Your task to perform on an android device: turn off improve location accuracy Image 0: 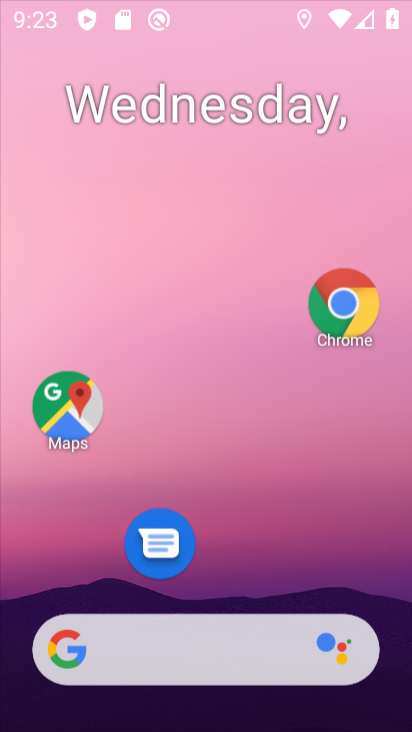
Step 0: click (324, 213)
Your task to perform on an android device: turn off improve location accuracy Image 1: 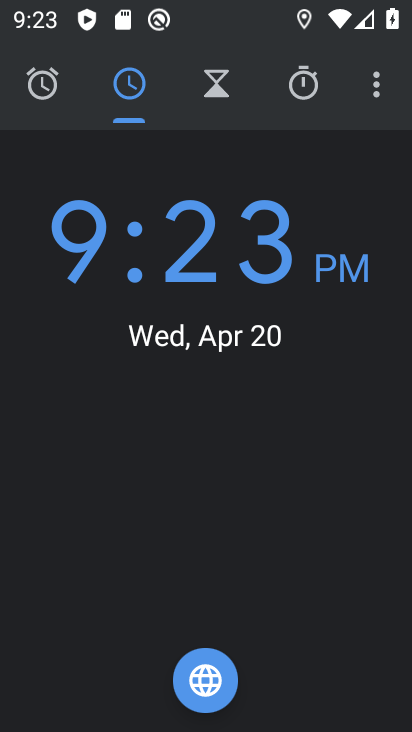
Step 1: press home button
Your task to perform on an android device: turn off improve location accuracy Image 2: 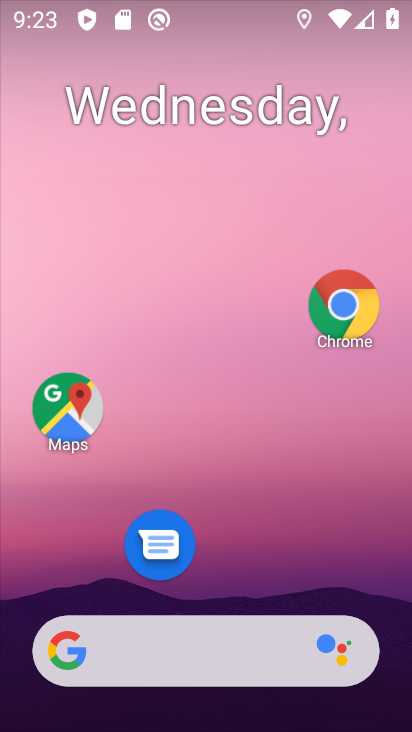
Step 2: drag from (257, 577) to (323, 127)
Your task to perform on an android device: turn off improve location accuracy Image 3: 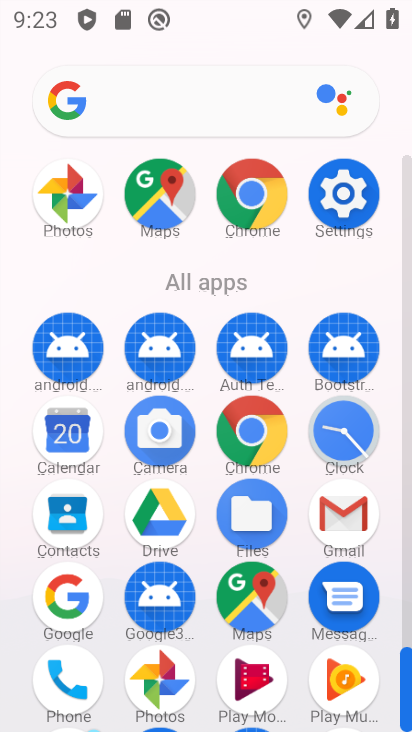
Step 3: click (350, 221)
Your task to perform on an android device: turn off improve location accuracy Image 4: 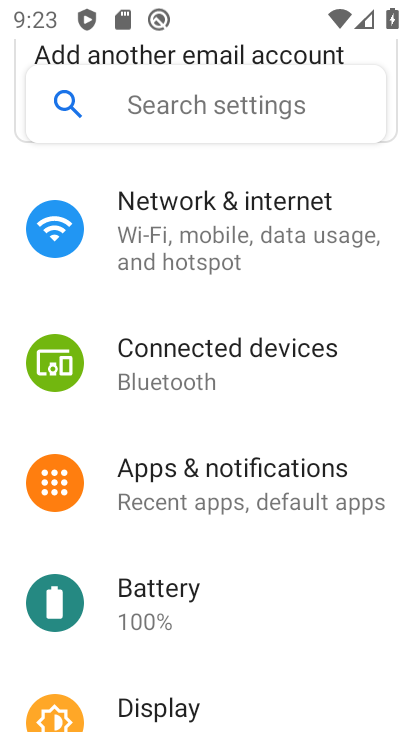
Step 4: drag from (299, 376) to (321, 250)
Your task to perform on an android device: turn off improve location accuracy Image 5: 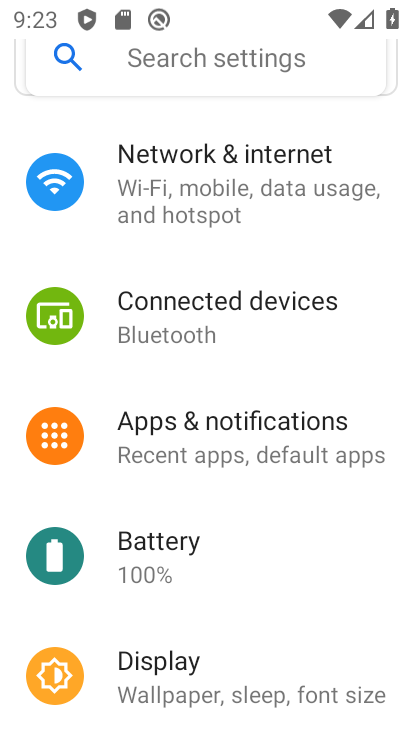
Step 5: drag from (258, 598) to (258, 247)
Your task to perform on an android device: turn off improve location accuracy Image 6: 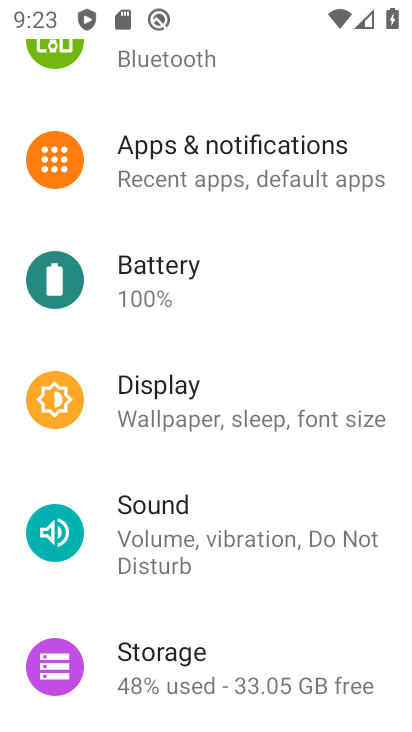
Step 6: drag from (222, 563) to (223, 334)
Your task to perform on an android device: turn off improve location accuracy Image 7: 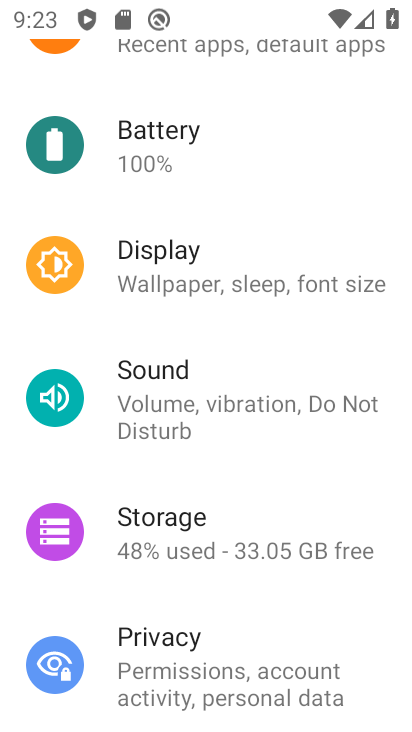
Step 7: drag from (316, 560) to (361, 348)
Your task to perform on an android device: turn off improve location accuracy Image 8: 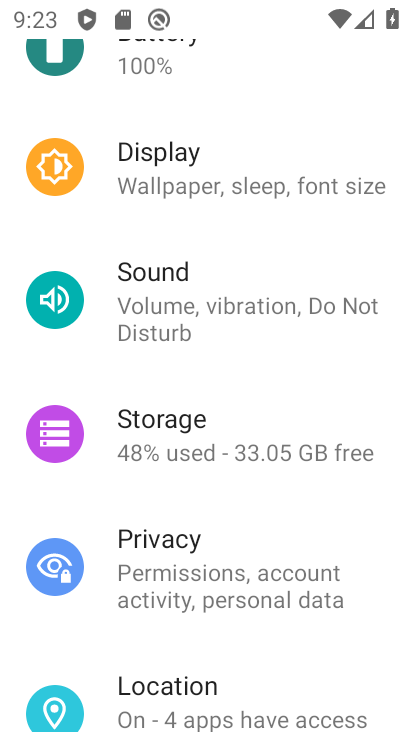
Step 8: drag from (208, 598) to (261, 186)
Your task to perform on an android device: turn off improve location accuracy Image 9: 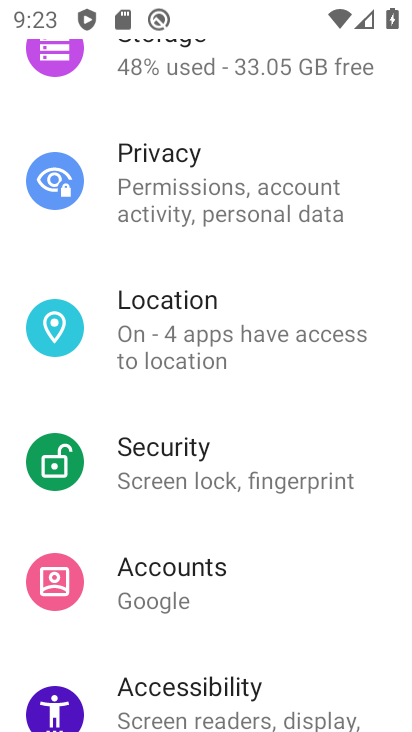
Step 9: click (240, 349)
Your task to perform on an android device: turn off improve location accuracy Image 10: 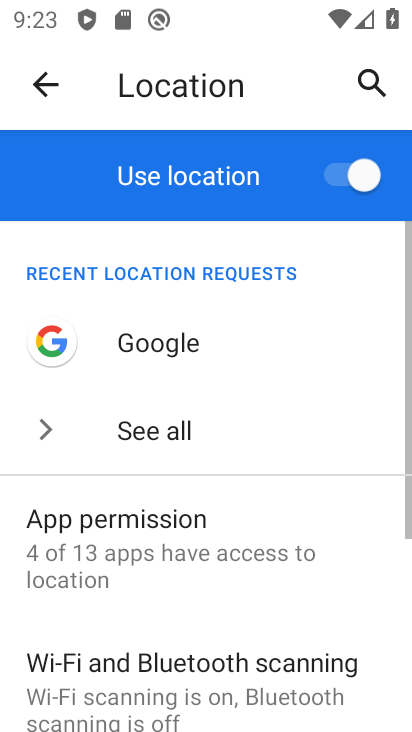
Step 10: drag from (214, 611) to (233, 298)
Your task to perform on an android device: turn off improve location accuracy Image 11: 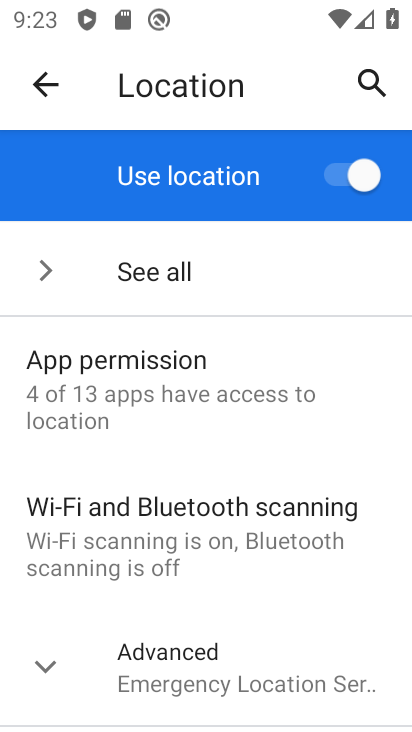
Step 11: click (215, 667)
Your task to perform on an android device: turn off improve location accuracy Image 12: 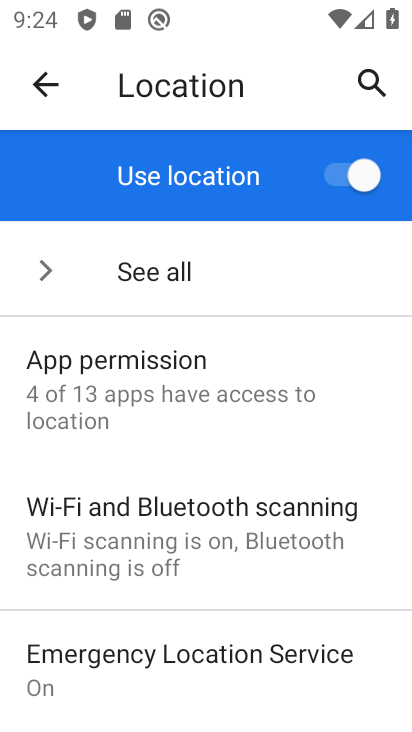
Step 12: drag from (259, 613) to (360, 235)
Your task to perform on an android device: turn off improve location accuracy Image 13: 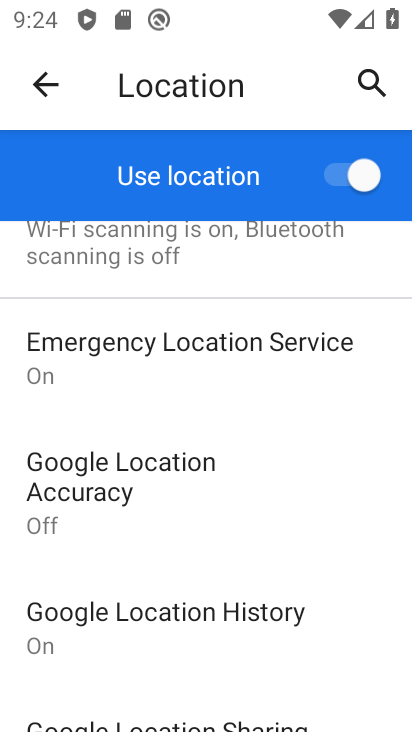
Step 13: click (212, 480)
Your task to perform on an android device: turn off improve location accuracy Image 14: 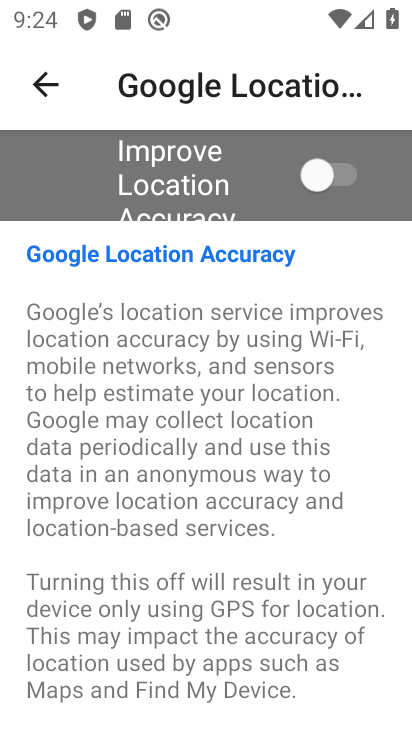
Step 14: task complete